Your task to perform on an android device: Do I have any events tomorrow? Image 0: 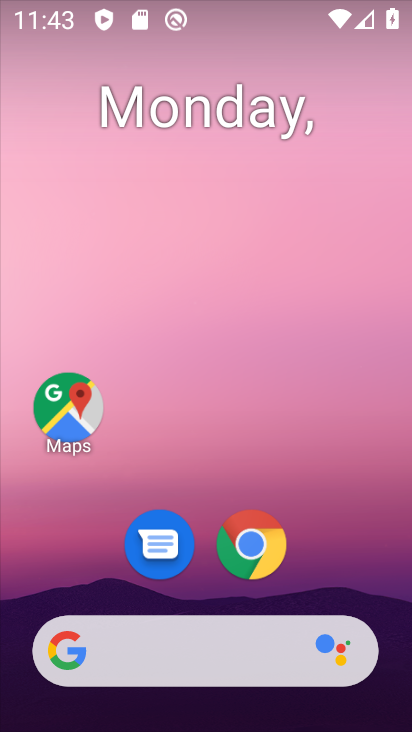
Step 0: drag from (300, 522) to (312, 329)
Your task to perform on an android device: Do I have any events tomorrow? Image 1: 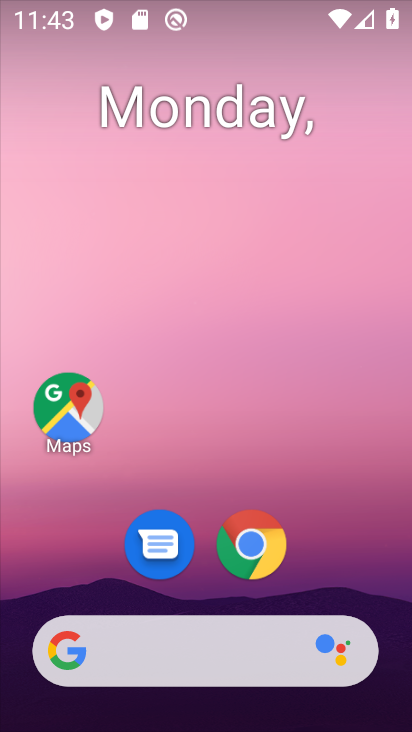
Step 1: drag from (345, 543) to (360, 230)
Your task to perform on an android device: Do I have any events tomorrow? Image 2: 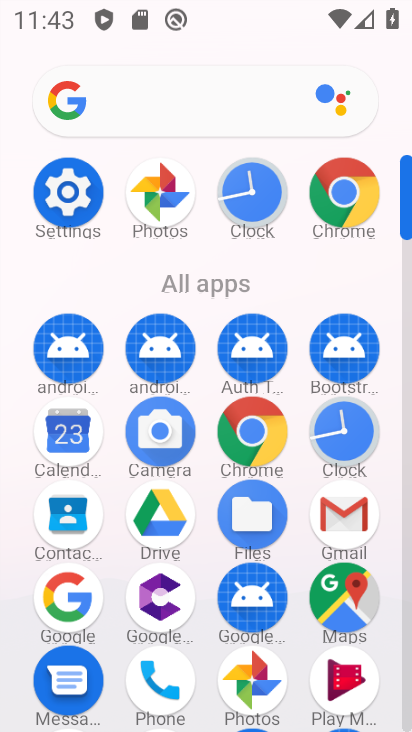
Step 2: click (334, 457)
Your task to perform on an android device: Do I have any events tomorrow? Image 3: 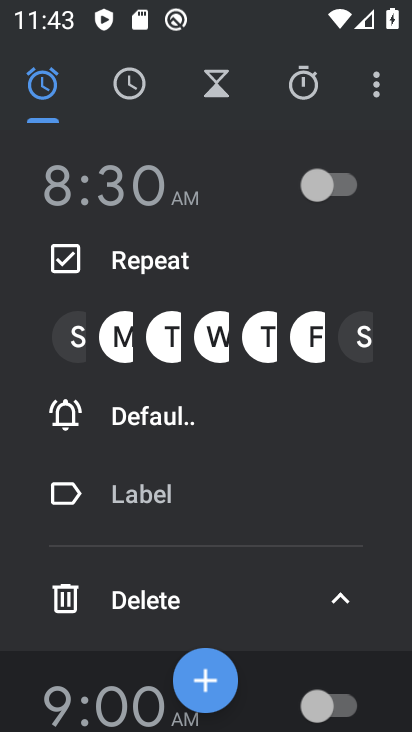
Step 3: press home button
Your task to perform on an android device: Do I have any events tomorrow? Image 4: 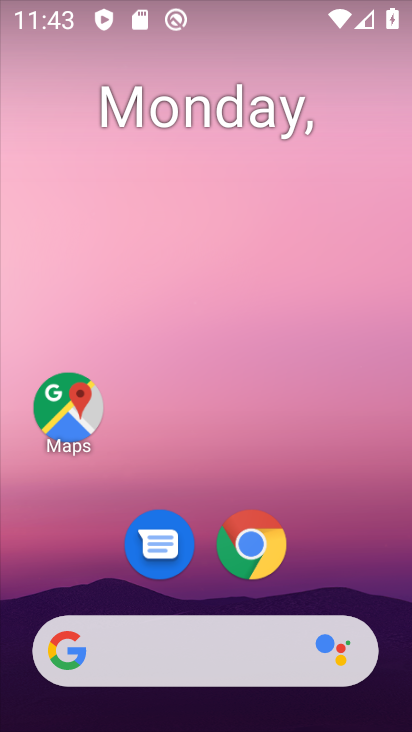
Step 4: drag from (326, 526) to (343, 107)
Your task to perform on an android device: Do I have any events tomorrow? Image 5: 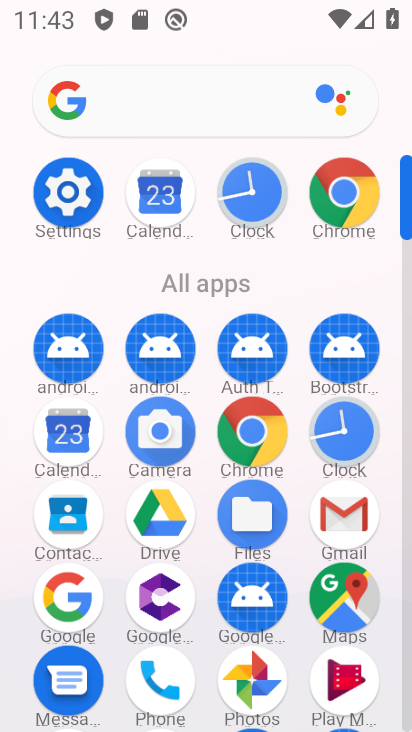
Step 5: click (171, 201)
Your task to perform on an android device: Do I have any events tomorrow? Image 6: 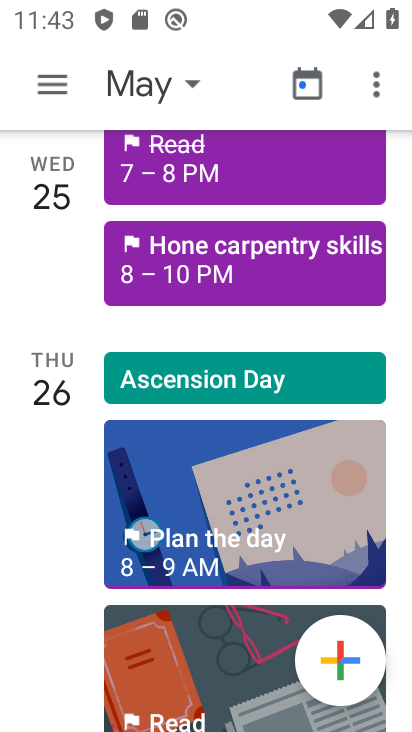
Step 6: task complete